Your task to perform on an android device: Search for "acer nitro" on newegg.com, select the first entry, and add it to the cart. Image 0: 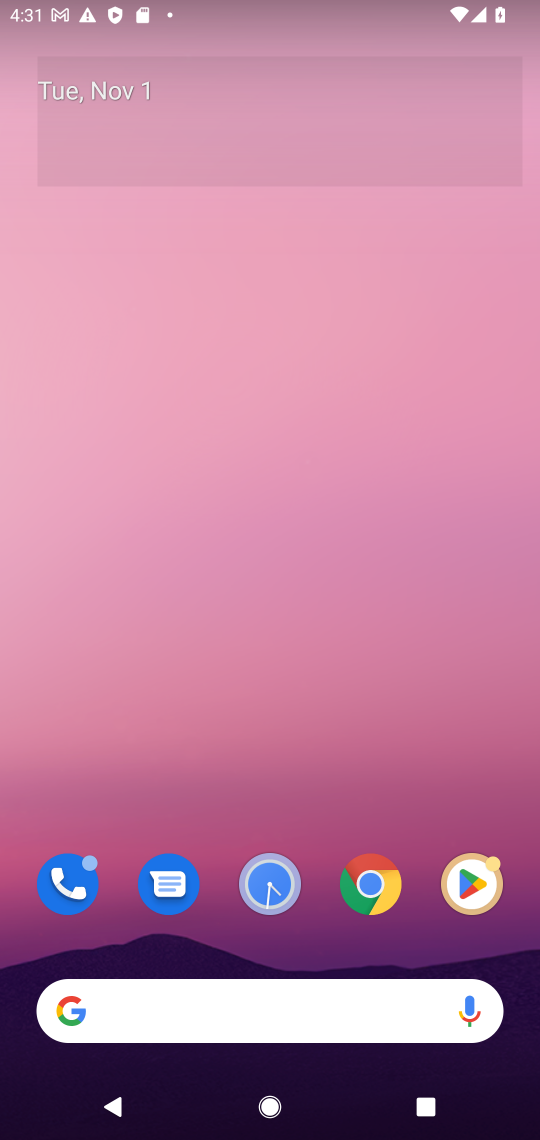
Step 0: click (359, 898)
Your task to perform on an android device: Search for "acer nitro" on newegg.com, select the first entry, and add it to the cart. Image 1: 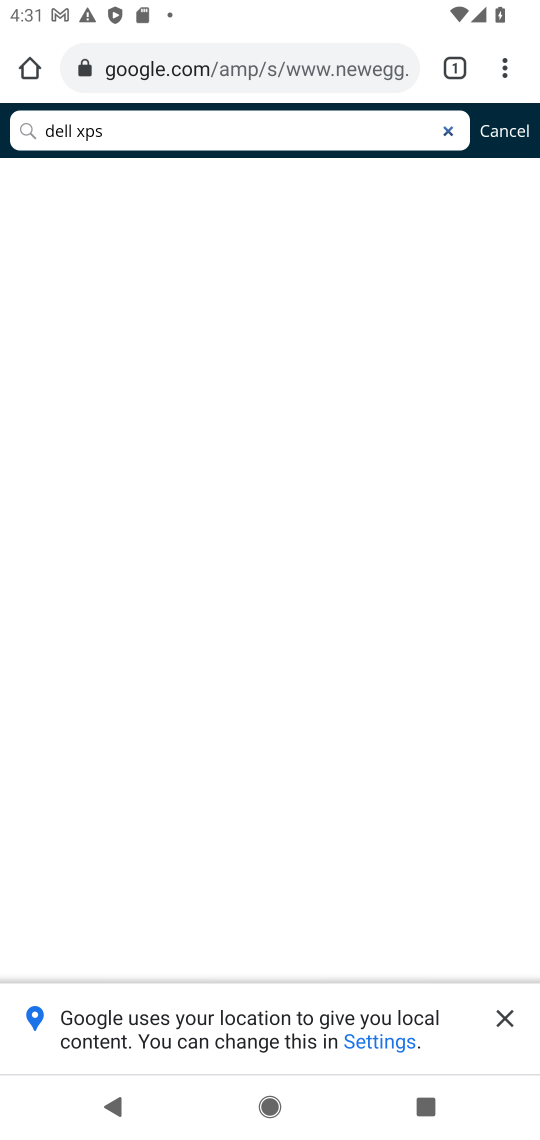
Step 1: click (237, 63)
Your task to perform on an android device: Search for "acer nitro" on newegg.com, select the first entry, and add it to the cart. Image 2: 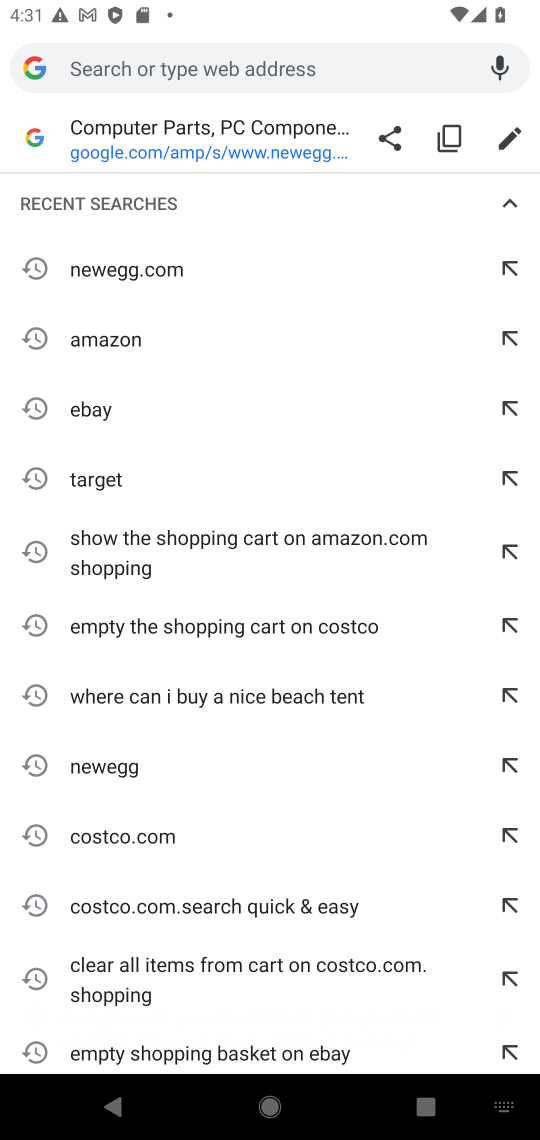
Step 2: type "newegg.com"
Your task to perform on an android device: Search for "acer nitro" on newegg.com, select the first entry, and add it to the cart. Image 3: 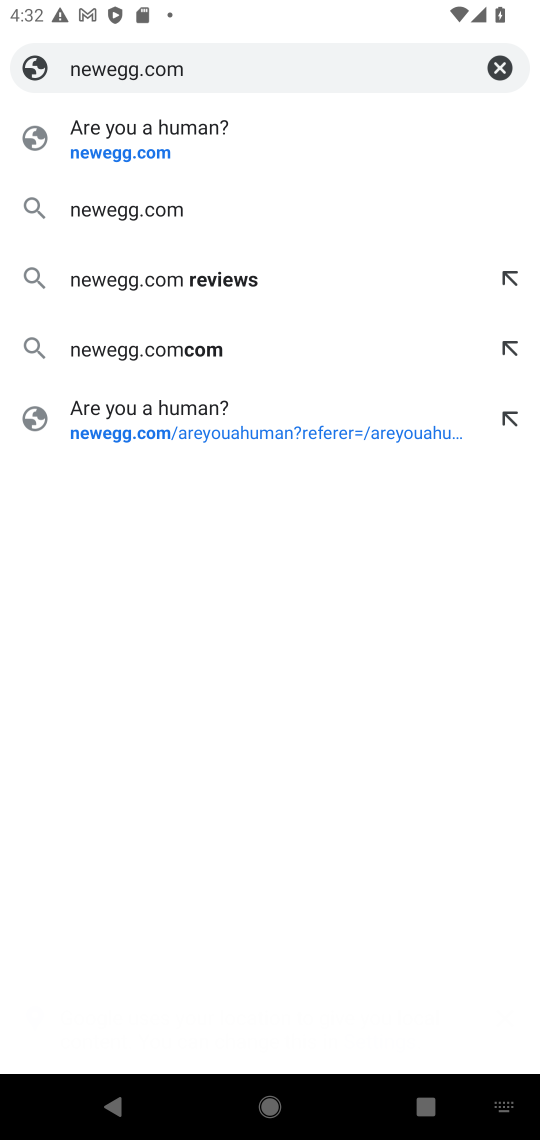
Step 3: click (176, 214)
Your task to perform on an android device: Search for "acer nitro" on newegg.com, select the first entry, and add it to the cart. Image 4: 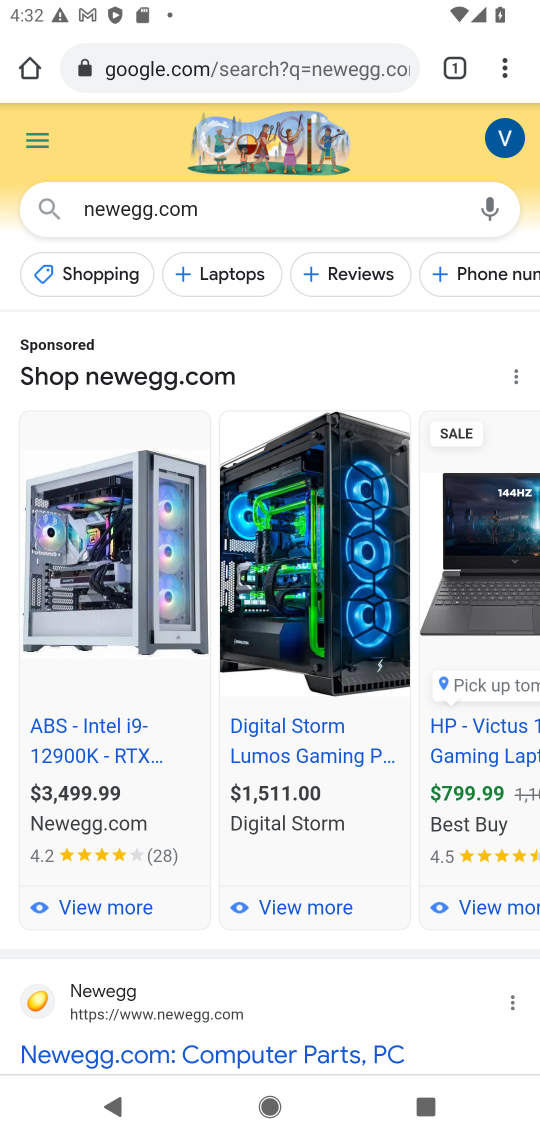
Step 4: click (179, 1048)
Your task to perform on an android device: Search for "acer nitro" on newegg.com, select the first entry, and add it to the cart. Image 5: 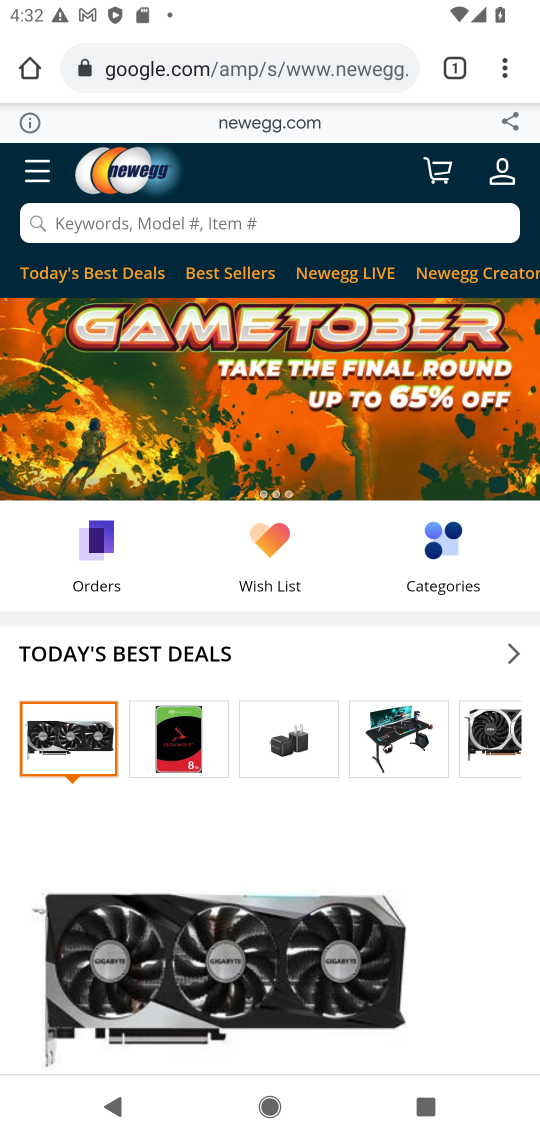
Step 5: click (318, 226)
Your task to perform on an android device: Search for "acer nitro" on newegg.com, select the first entry, and add it to the cart. Image 6: 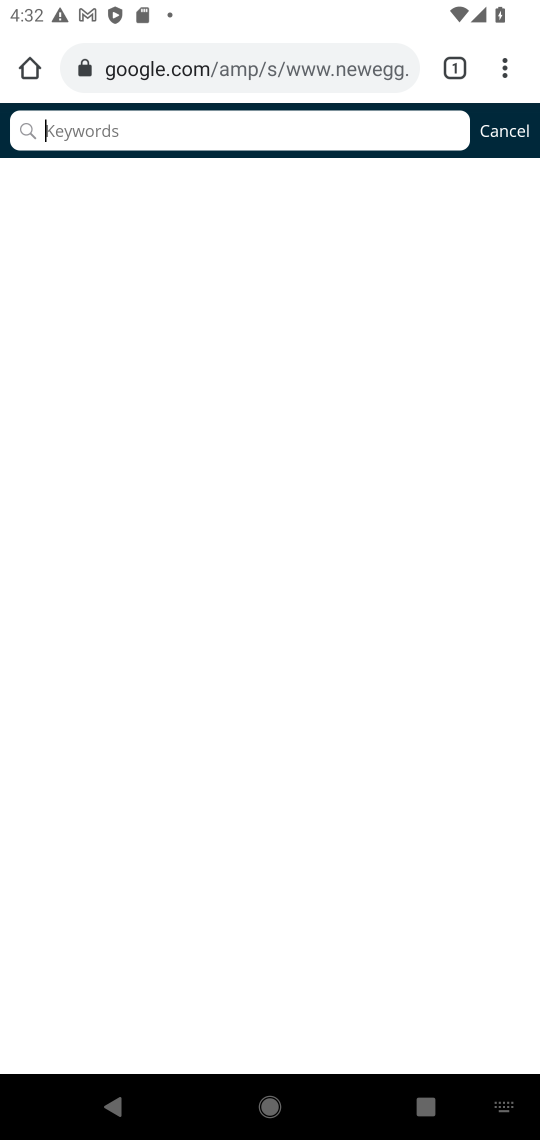
Step 6: type "acer nitro"
Your task to perform on an android device: Search for "acer nitro" on newegg.com, select the first entry, and add it to the cart. Image 7: 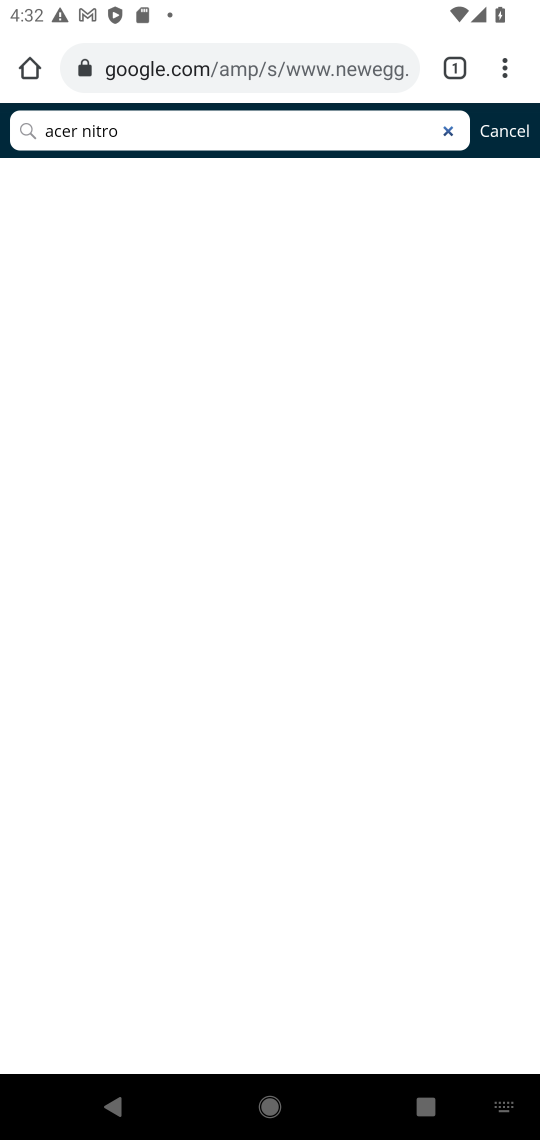
Step 7: click (31, 134)
Your task to perform on an android device: Search for "acer nitro" on newegg.com, select the first entry, and add it to the cart. Image 8: 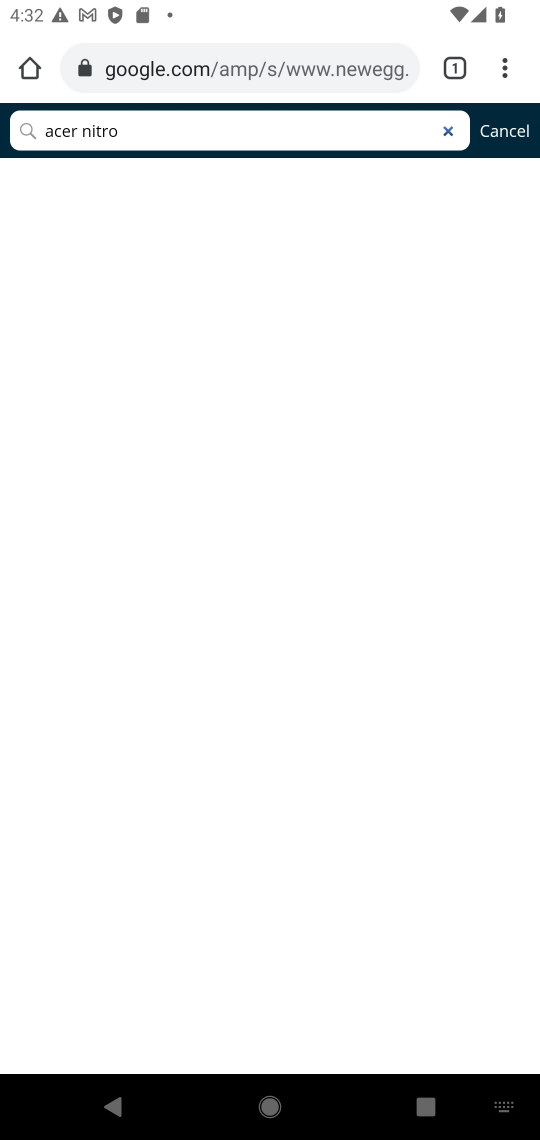
Step 8: click (31, 134)
Your task to perform on an android device: Search for "acer nitro" on newegg.com, select the first entry, and add it to the cart. Image 9: 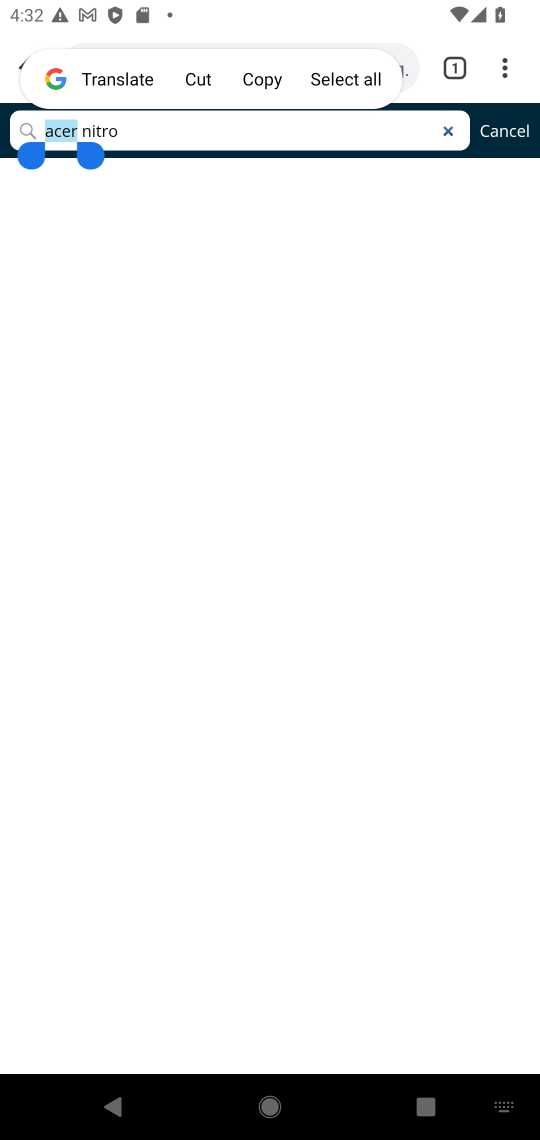
Step 9: click (190, 211)
Your task to perform on an android device: Search for "acer nitro" on newegg.com, select the first entry, and add it to the cart. Image 10: 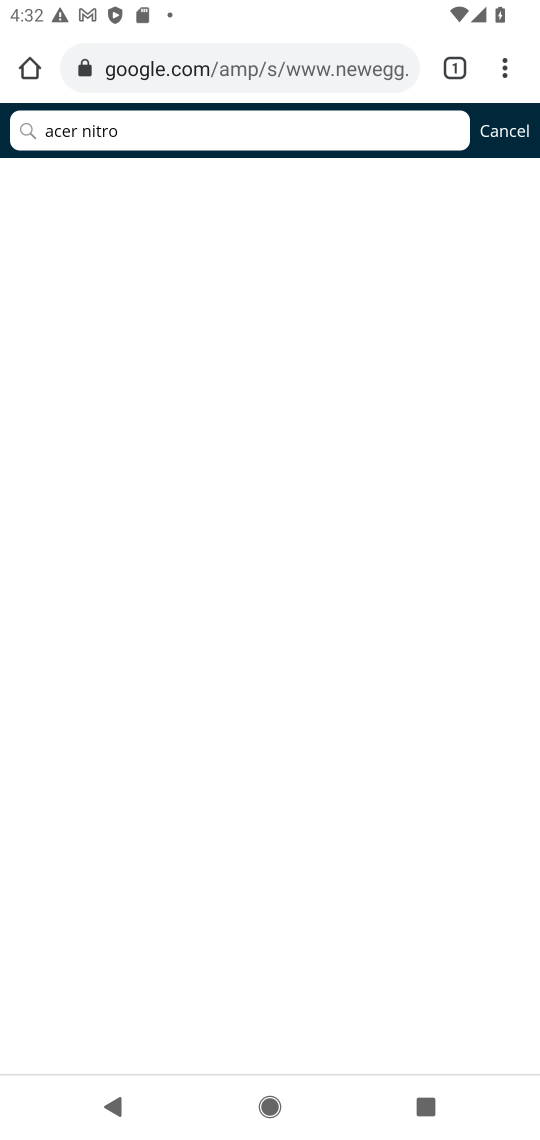
Step 10: task complete